Your task to perform on an android device: change the clock display to analog Image 0: 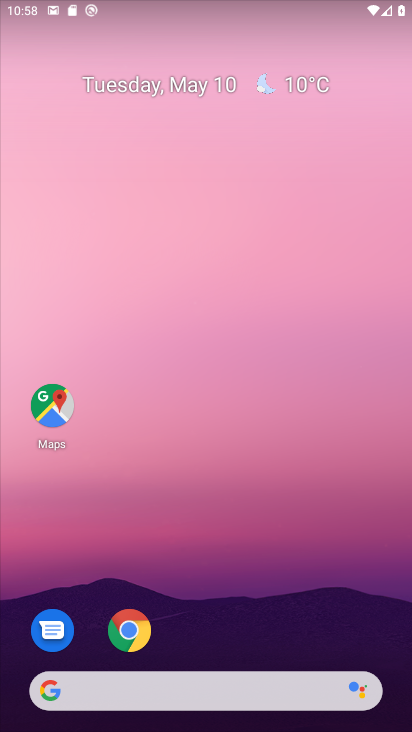
Step 0: drag from (234, 538) to (239, 104)
Your task to perform on an android device: change the clock display to analog Image 1: 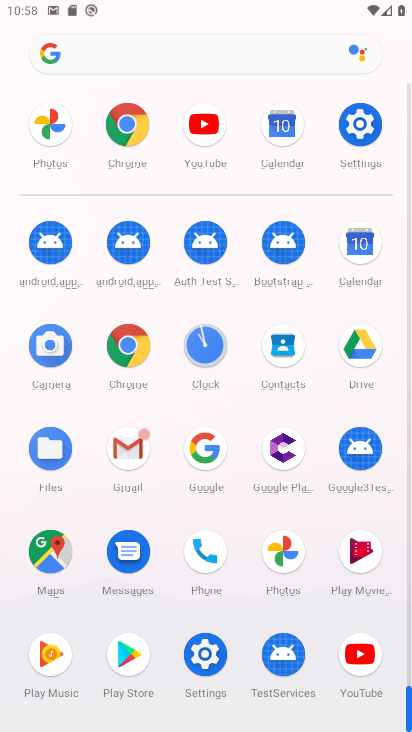
Step 1: click (201, 340)
Your task to perform on an android device: change the clock display to analog Image 2: 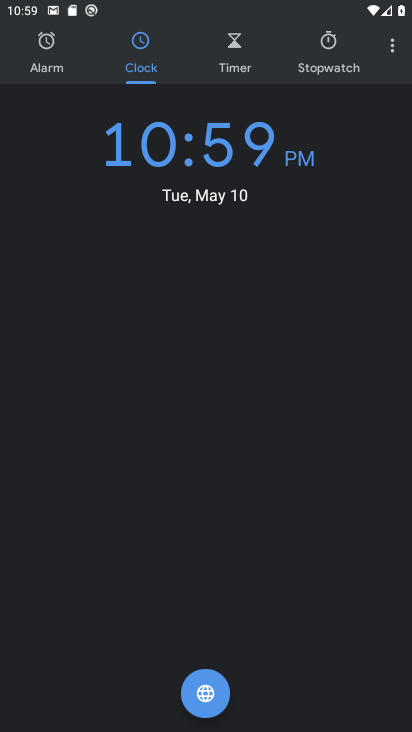
Step 2: click (398, 44)
Your task to perform on an android device: change the clock display to analog Image 3: 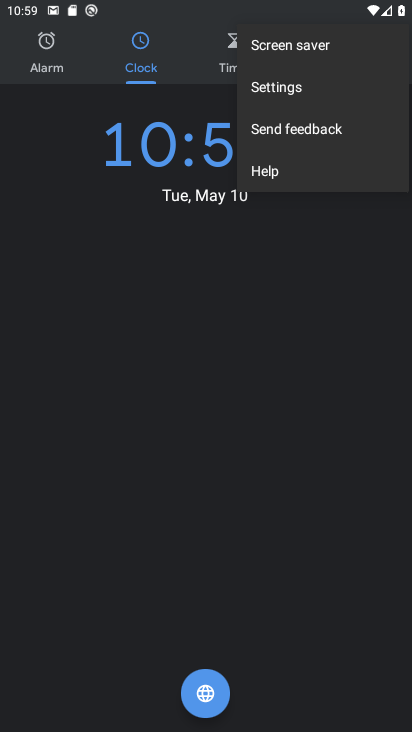
Step 3: click (291, 86)
Your task to perform on an android device: change the clock display to analog Image 4: 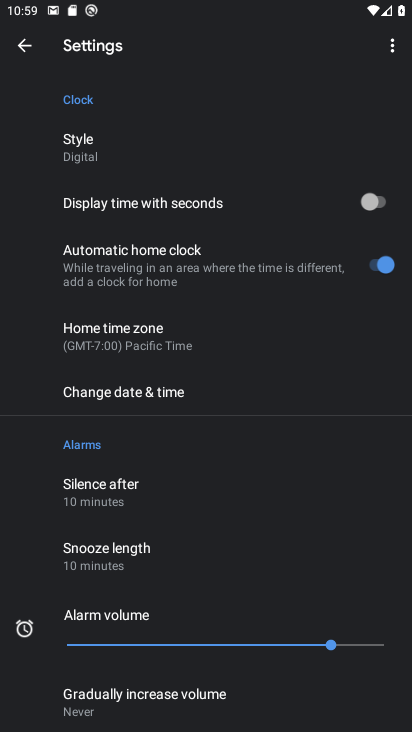
Step 4: click (112, 155)
Your task to perform on an android device: change the clock display to analog Image 5: 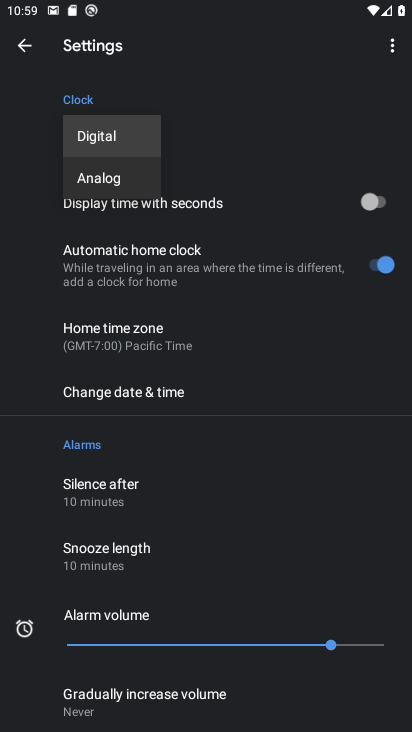
Step 5: click (124, 175)
Your task to perform on an android device: change the clock display to analog Image 6: 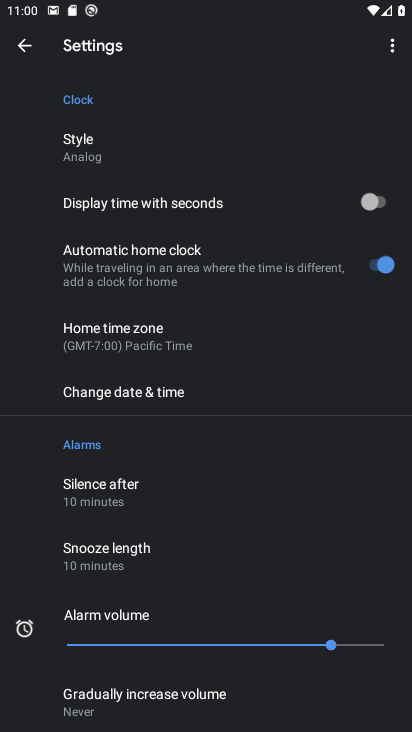
Step 6: task complete